Your task to perform on an android device: Open the Play Movies app and select the watchlist tab. Image 0: 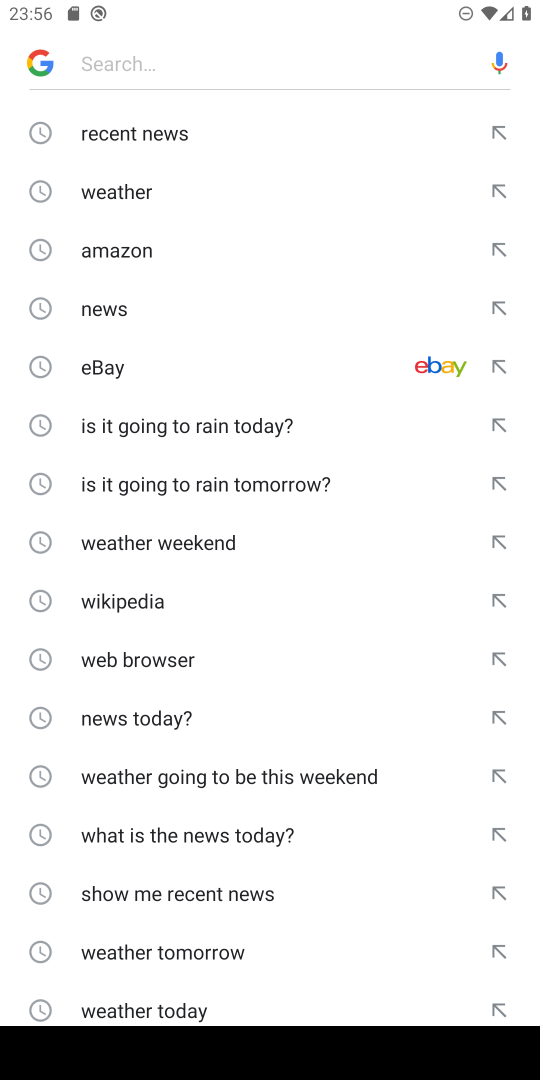
Step 0: press home button
Your task to perform on an android device: Open the Play Movies app and select the watchlist tab. Image 1: 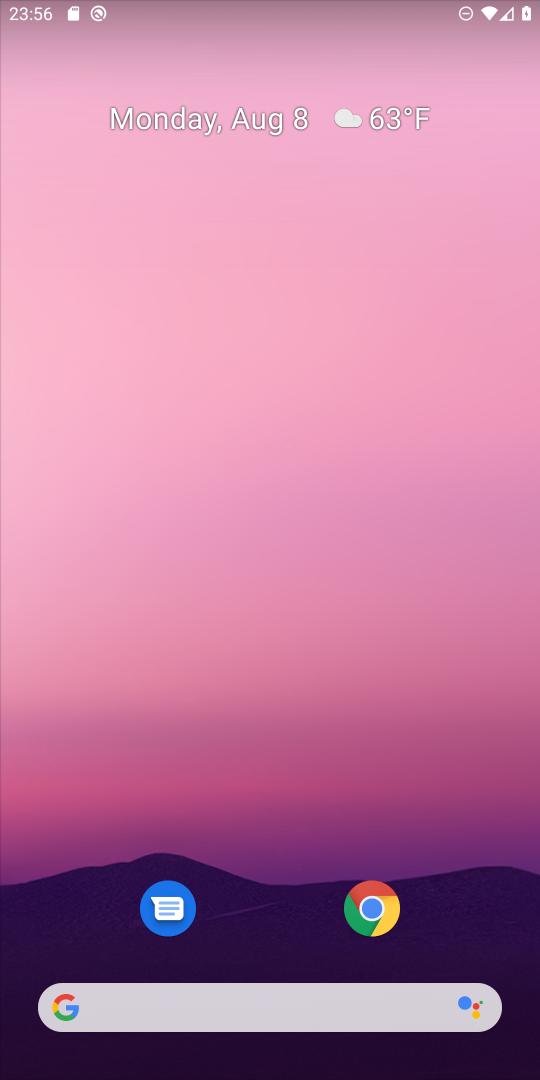
Step 1: drag from (266, 938) to (32, 95)
Your task to perform on an android device: Open the Play Movies app and select the watchlist tab. Image 2: 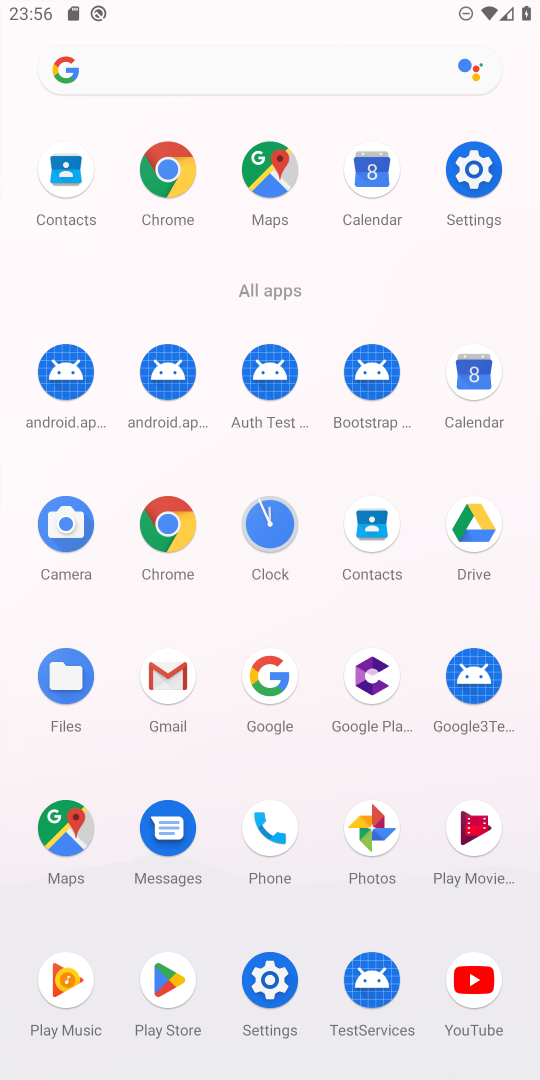
Step 2: click (477, 849)
Your task to perform on an android device: Open the Play Movies app and select the watchlist tab. Image 3: 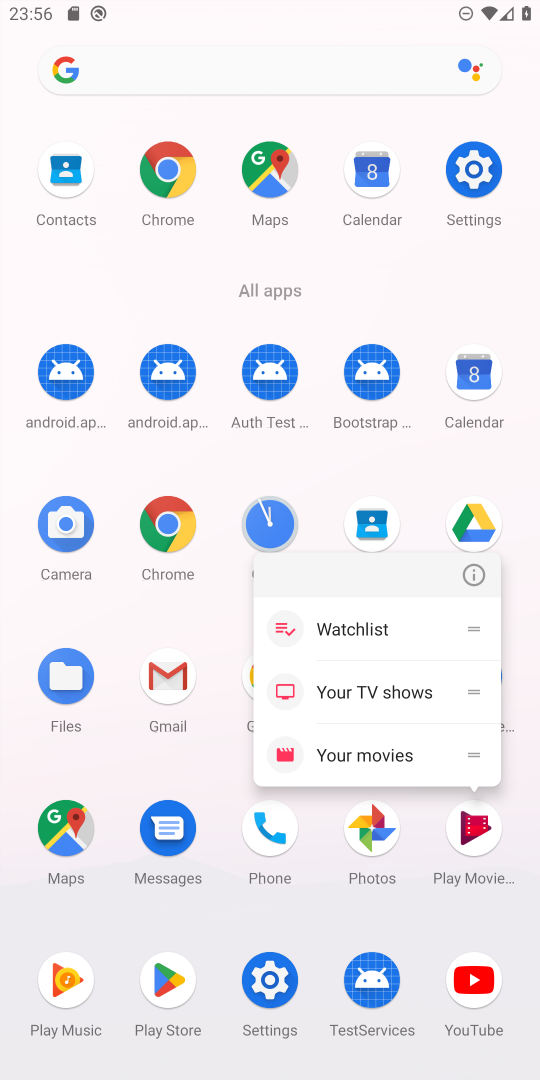
Step 3: click (477, 849)
Your task to perform on an android device: Open the Play Movies app and select the watchlist tab. Image 4: 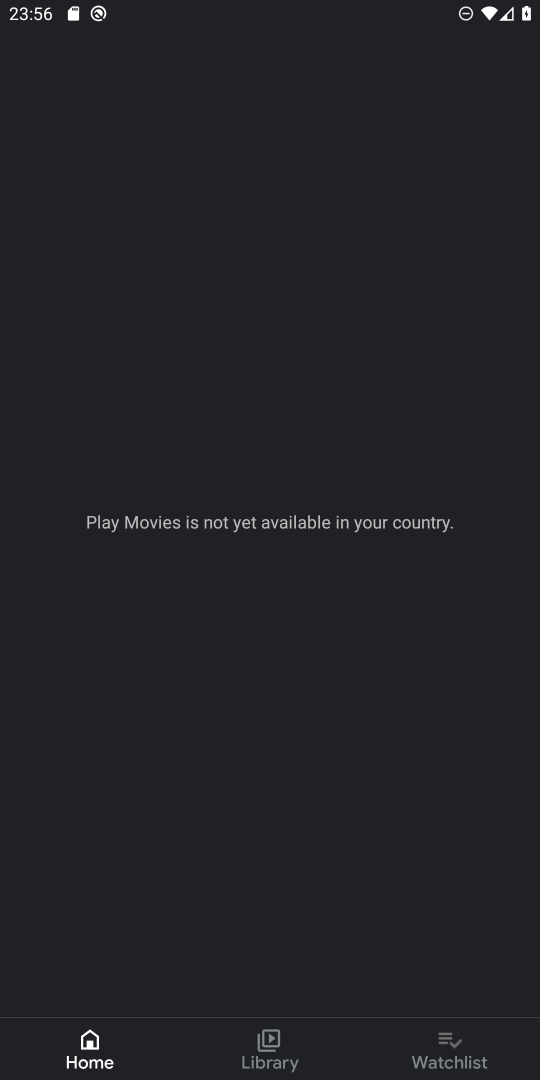
Step 4: click (472, 1062)
Your task to perform on an android device: Open the Play Movies app and select the watchlist tab. Image 5: 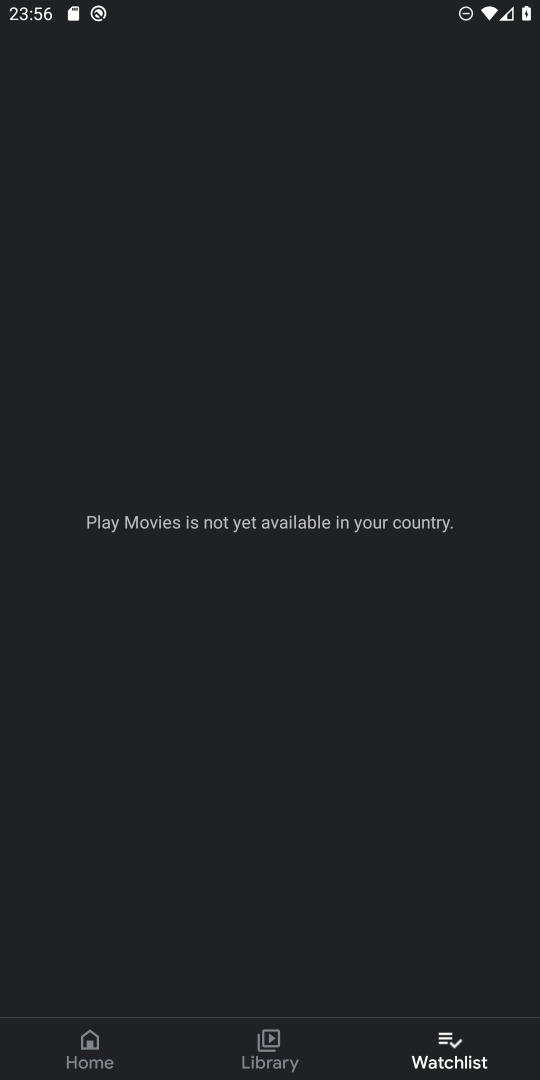
Step 5: task complete